Your task to perform on an android device: refresh tabs in the chrome app Image 0: 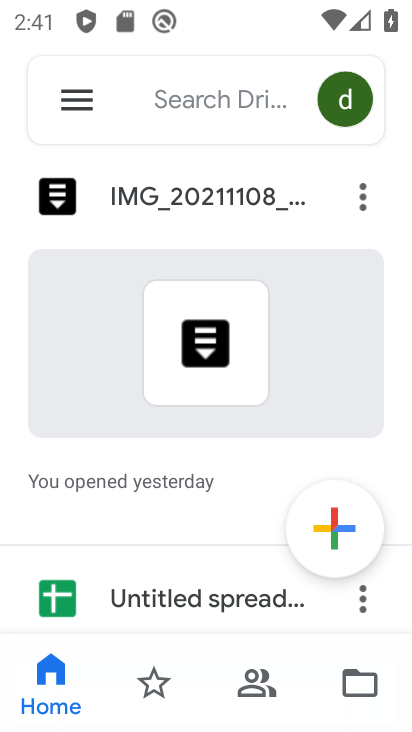
Step 0: press home button
Your task to perform on an android device: refresh tabs in the chrome app Image 1: 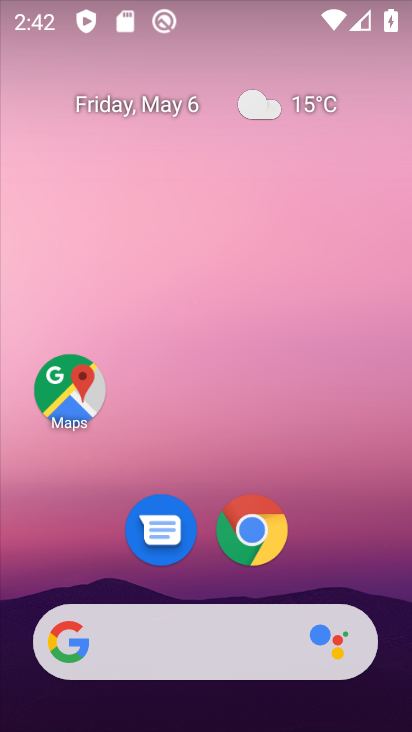
Step 1: drag from (337, 555) to (365, 55)
Your task to perform on an android device: refresh tabs in the chrome app Image 2: 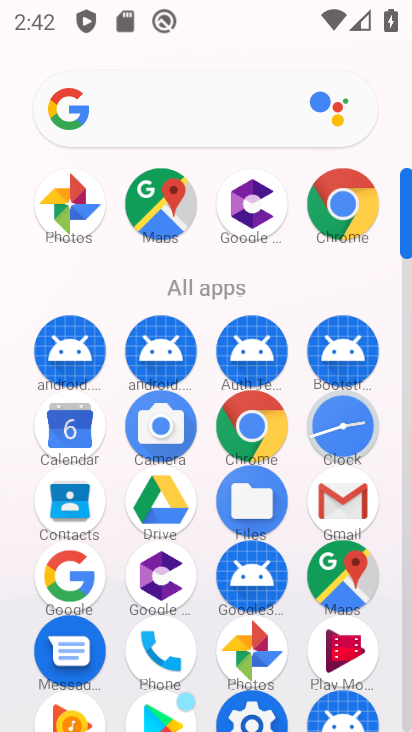
Step 2: click (373, 211)
Your task to perform on an android device: refresh tabs in the chrome app Image 3: 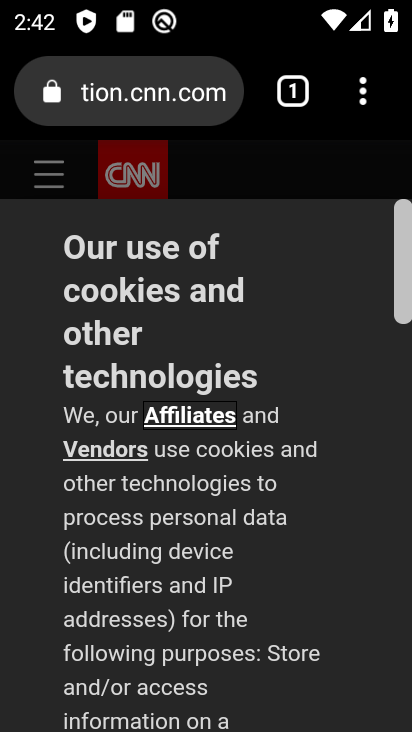
Step 3: task complete